Your task to perform on an android device: Open location settings Image 0: 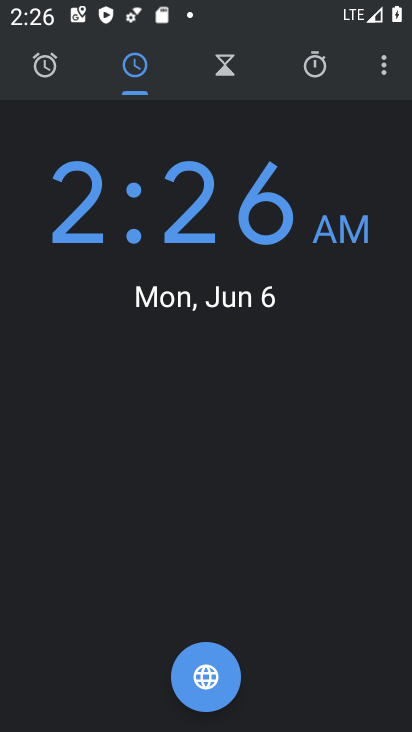
Step 0: press back button
Your task to perform on an android device: Open location settings Image 1: 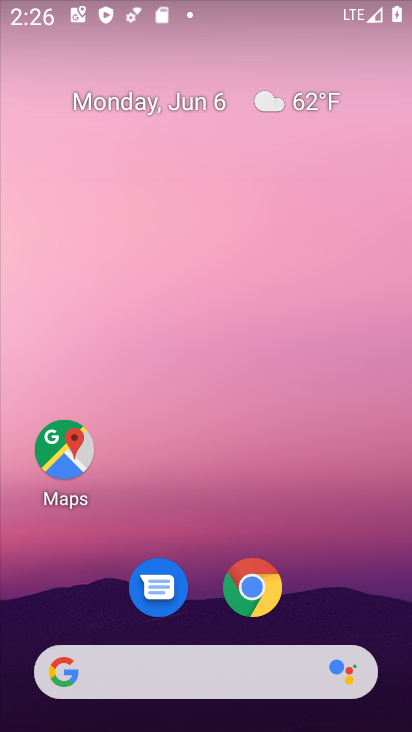
Step 1: drag from (317, 577) to (287, 17)
Your task to perform on an android device: Open location settings Image 2: 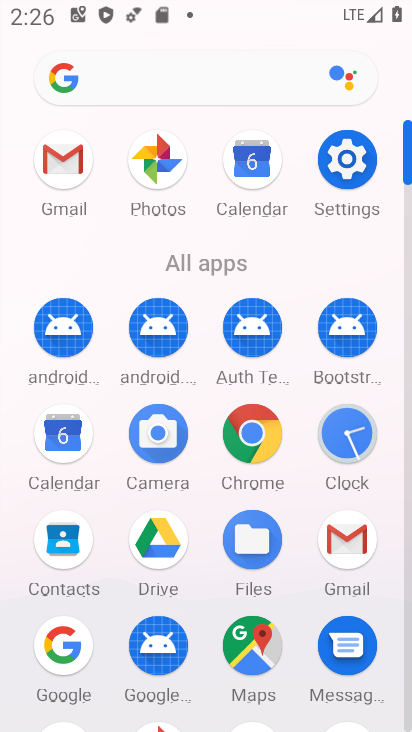
Step 2: drag from (14, 563) to (24, 322)
Your task to perform on an android device: Open location settings Image 3: 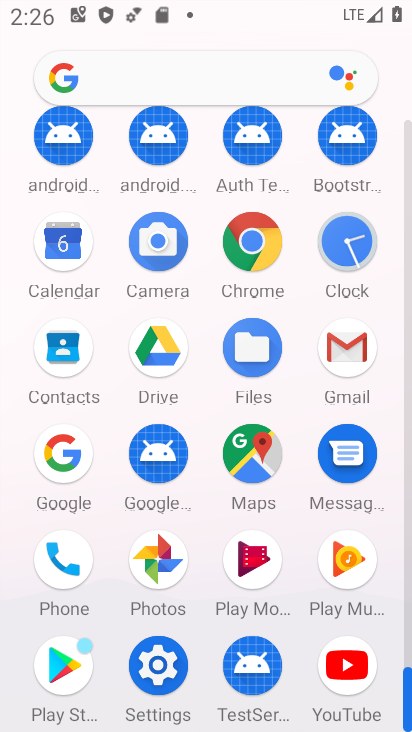
Step 3: click (160, 664)
Your task to perform on an android device: Open location settings Image 4: 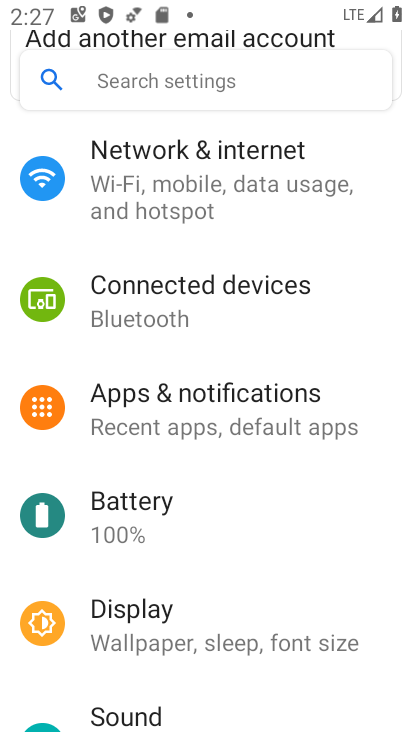
Step 4: drag from (261, 400) to (269, 169)
Your task to perform on an android device: Open location settings Image 5: 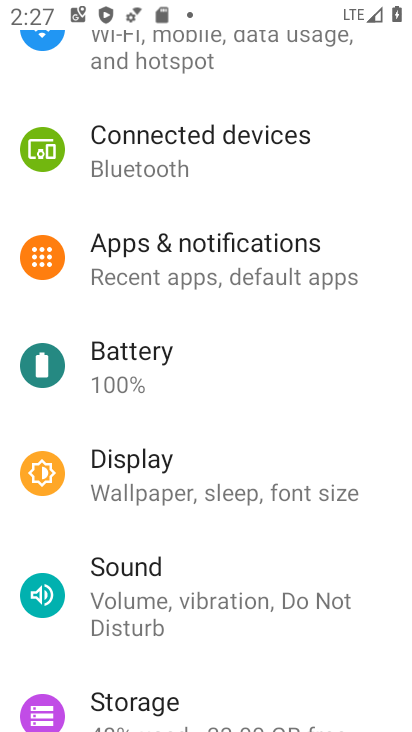
Step 5: drag from (240, 595) to (271, 199)
Your task to perform on an android device: Open location settings Image 6: 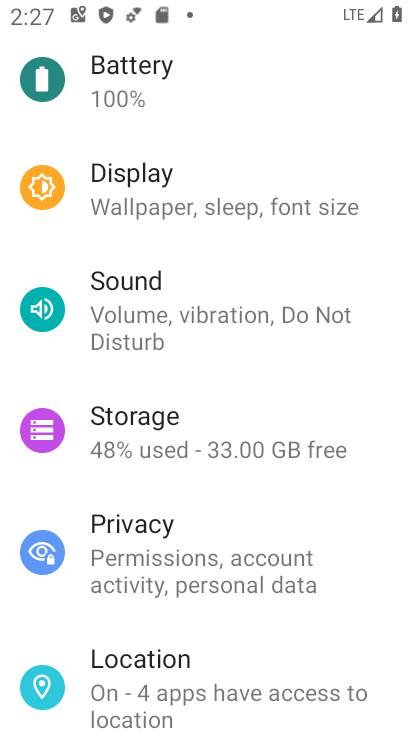
Step 6: drag from (270, 574) to (282, 223)
Your task to perform on an android device: Open location settings Image 7: 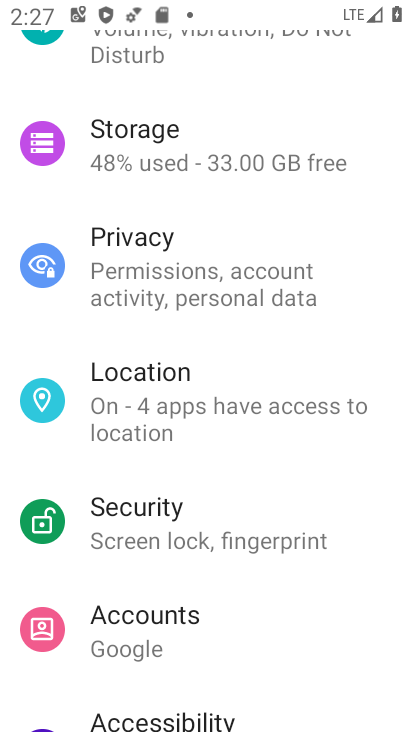
Step 7: click (178, 375)
Your task to perform on an android device: Open location settings Image 8: 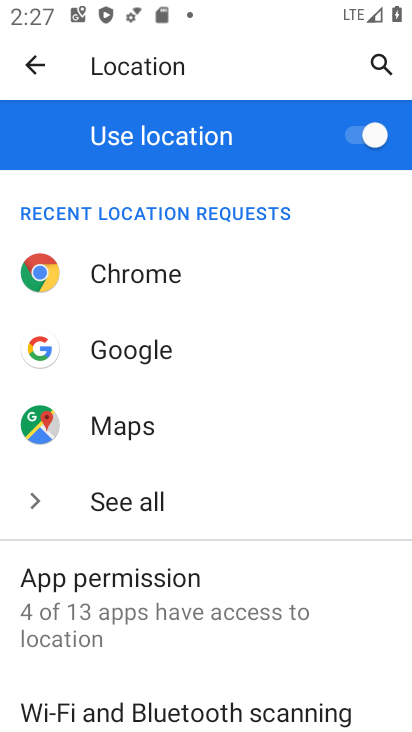
Step 8: drag from (257, 513) to (281, 211)
Your task to perform on an android device: Open location settings Image 9: 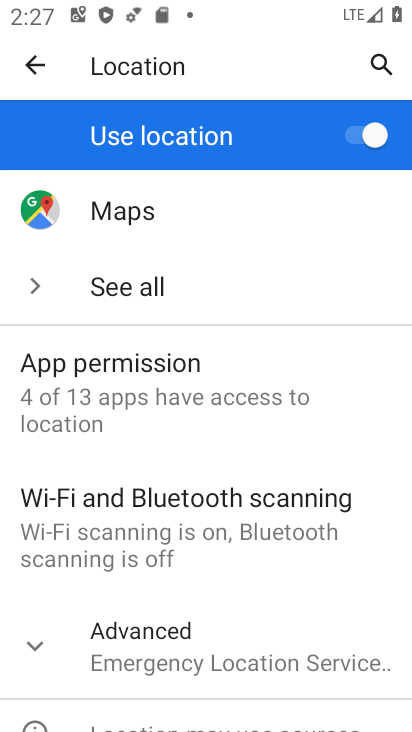
Step 9: click (74, 662)
Your task to perform on an android device: Open location settings Image 10: 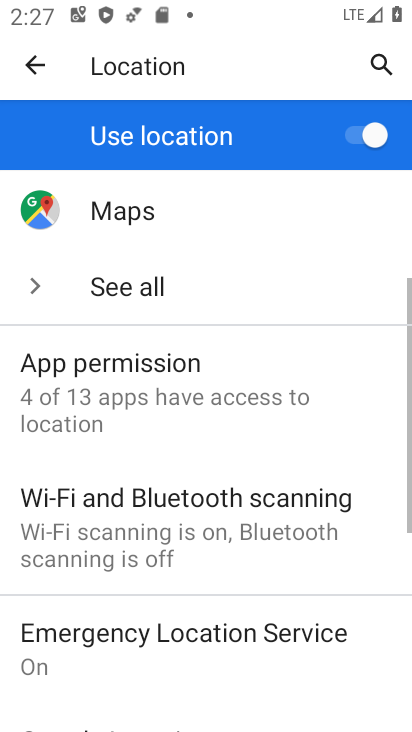
Step 10: task complete